Your task to perform on an android device: Do I have any events this weekend? Image 0: 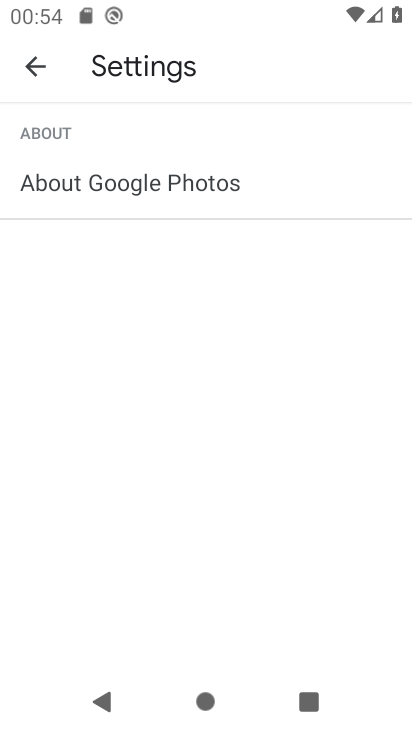
Step 0: press home button
Your task to perform on an android device: Do I have any events this weekend? Image 1: 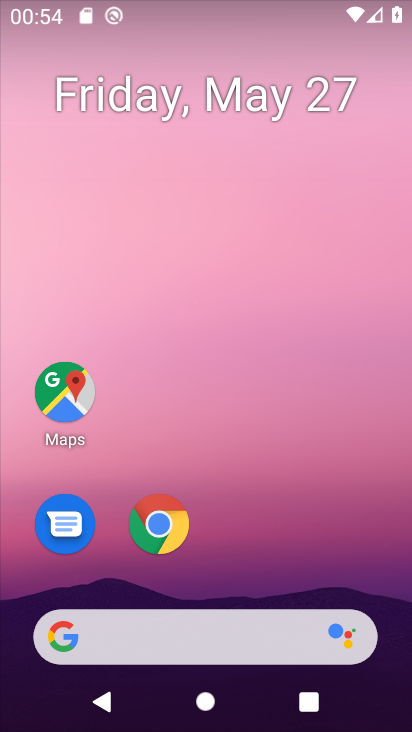
Step 1: drag from (278, 577) to (298, 13)
Your task to perform on an android device: Do I have any events this weekend? Image 2: 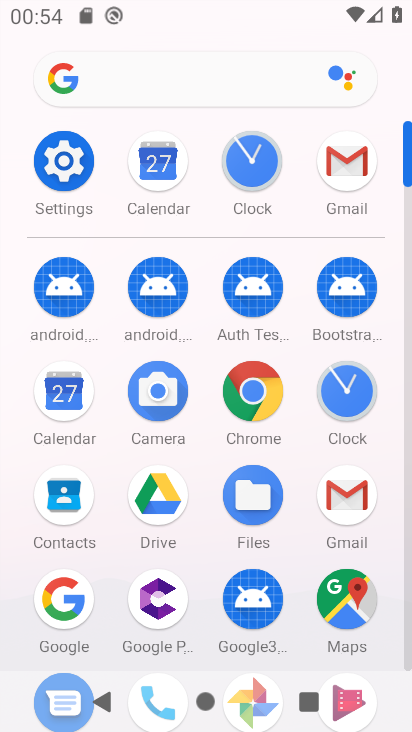
Step 2: click (172, 162)
Your task to perform on an android device: Do I have any events this weekend? Image 3: 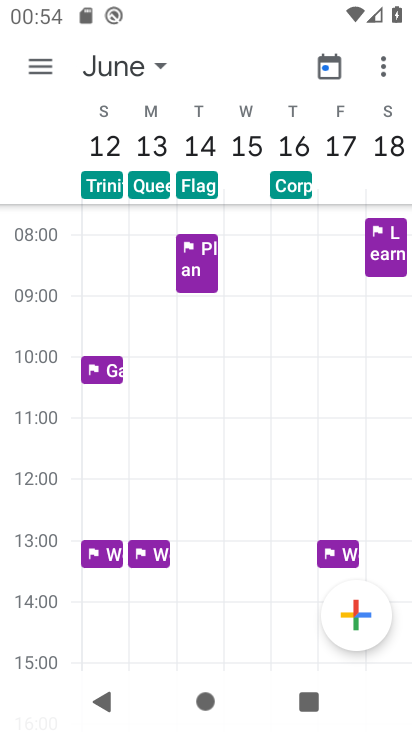
Step 3: drag from (93, 441) to (406, 469)
Your task to perform on an android device: Do I have any events this weekend? Image 4: 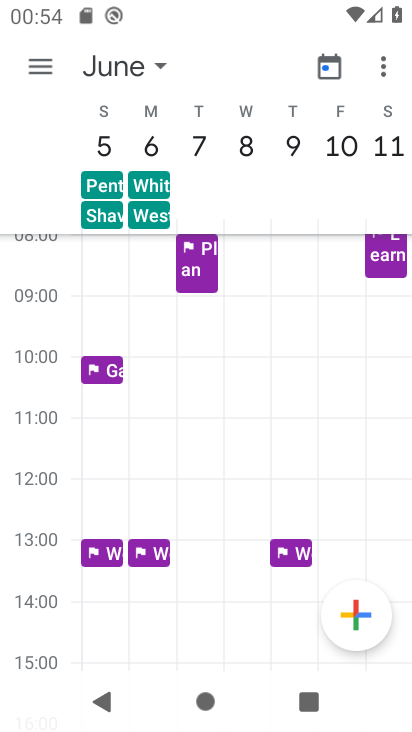
Step 4: drag from (103, 434) to (408, 467)
Your task to perform on an android device: Do I have any events this weekend? Image 5: 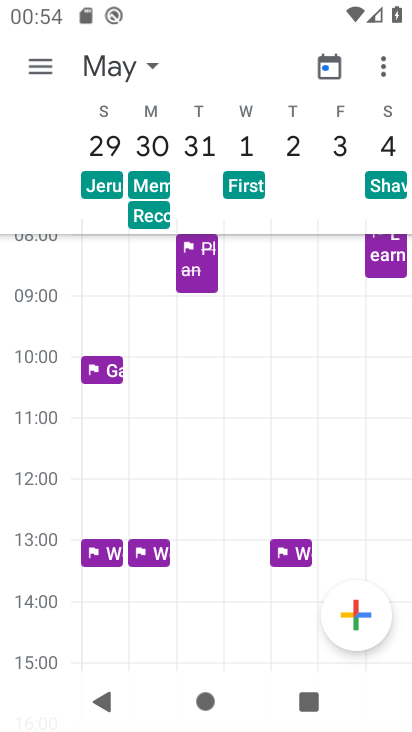
Step 5: drag from (105, 434) to (411, 454)
Your task to perform on an android device: Do I have any events this weekend? Image 6: 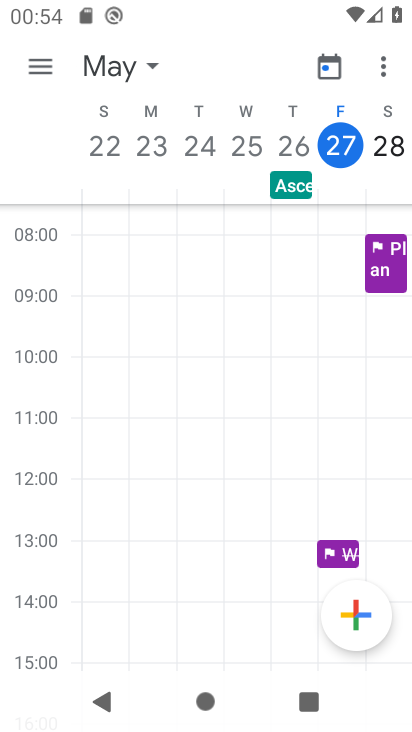
Step 6: click (341, 142)
Your task to perform on an android device: Do I have any events this weekend? Image 7: 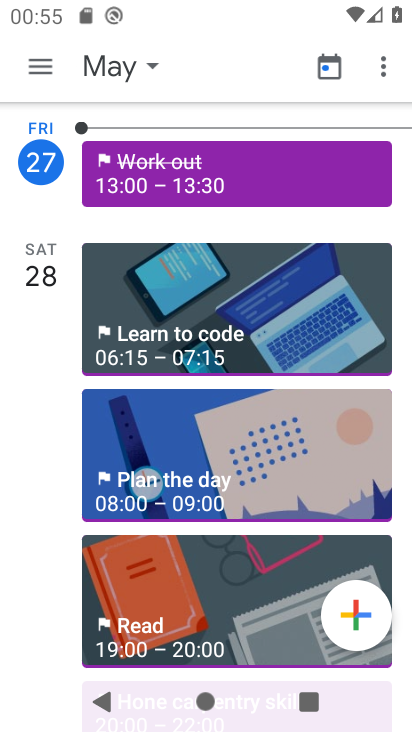
Step 7: task complete